Your task to perform on an android device: turn notification dots on Image 0: 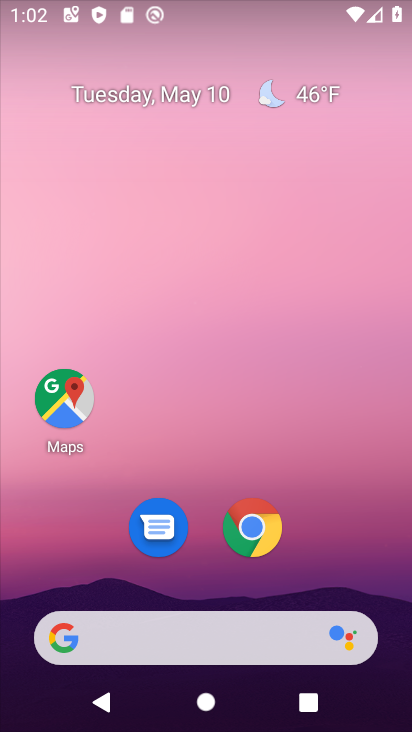
Step 0: drag from (353, 585) to (312, 132)
Your task to perform on an android device: turn notification dots on Image 1: 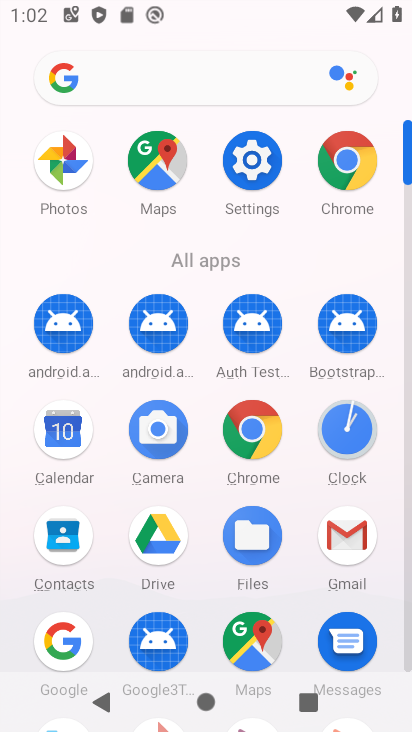
Step 1: click (249, 170)
Your task to perform on an android device: turn notification dots on Image 2: 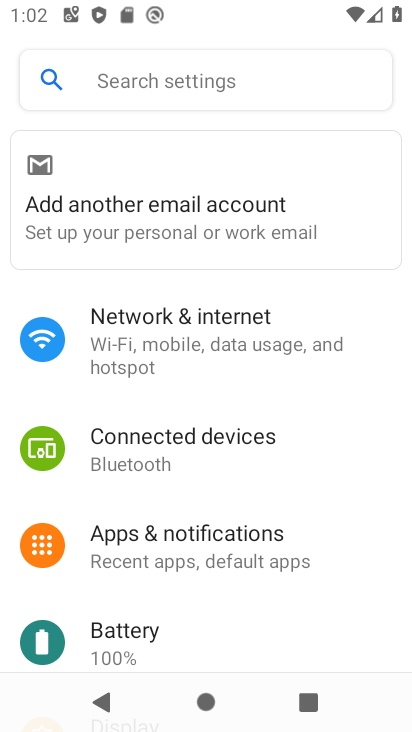
Step 2: click (156, 552)
Your task to perform on an android device: turn notification dots on Image 3: 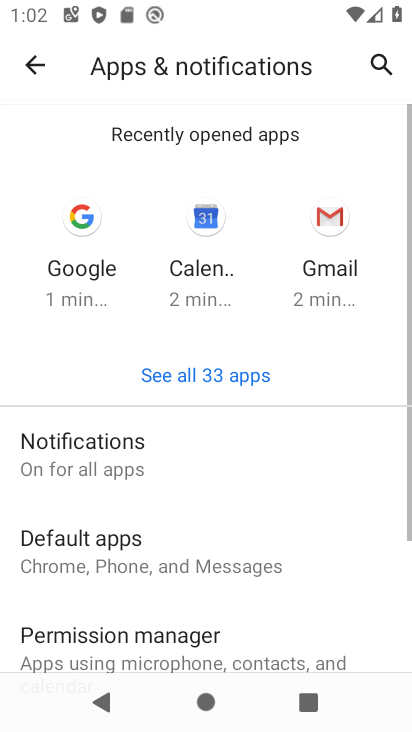
Step 3: click (88, 461)
Your task to perform on an android device: turn notification dots on Image 4: 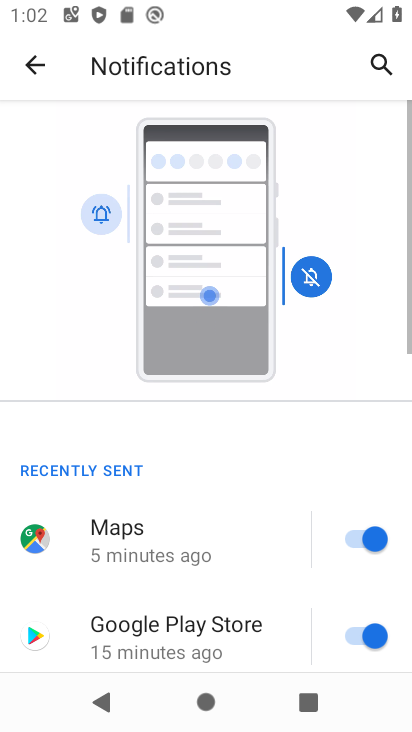
Step 4: drag from (179, 572) to (212, 216)
Your task to perform on an android device: turn notification dots on Image 5: 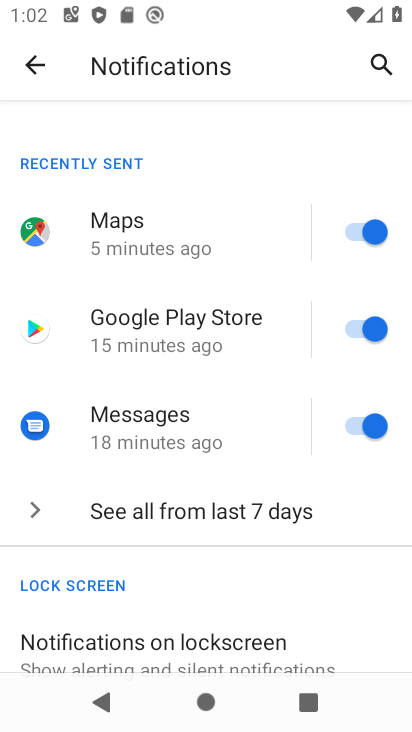
Step 5: drag from (135, 509) to (162, 183)
Your task to perform on an android device: turn notification dots on Image 6: 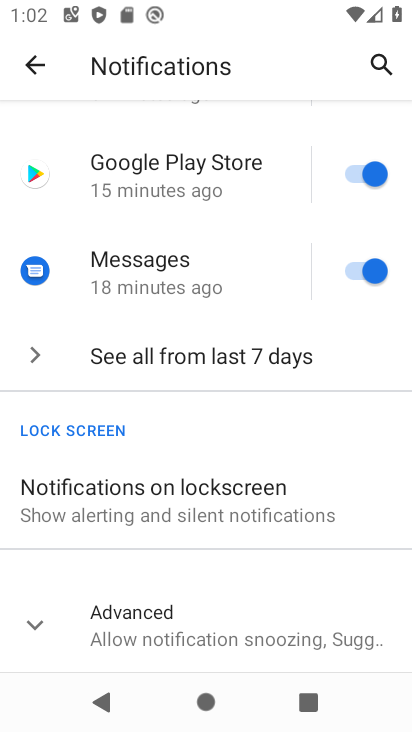
Step 6: click (39, 630)
Your task to perform on an android device: turn notification dots on Image 7: 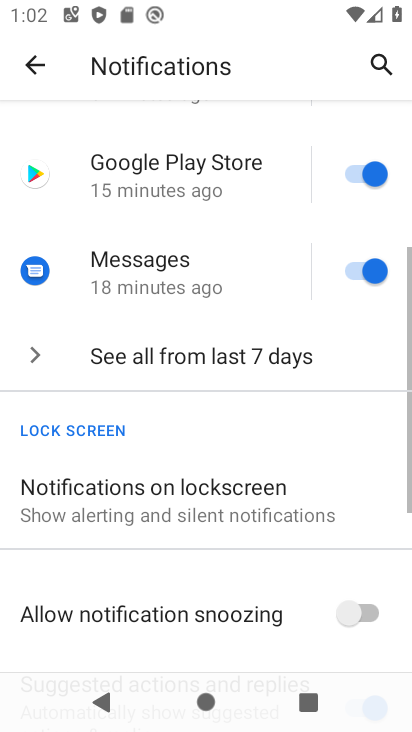
Step 7: task complete